Your task to perform on an android device: Open sound settings Image 0: 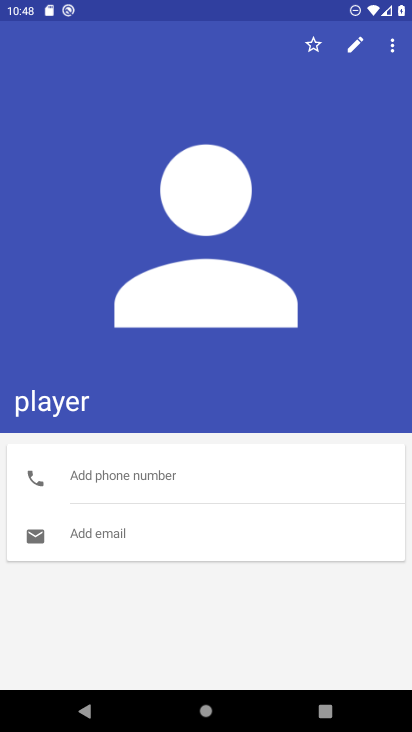
Step 0: press home button
Your task to perform on an android device: Open sound settings Image 1: 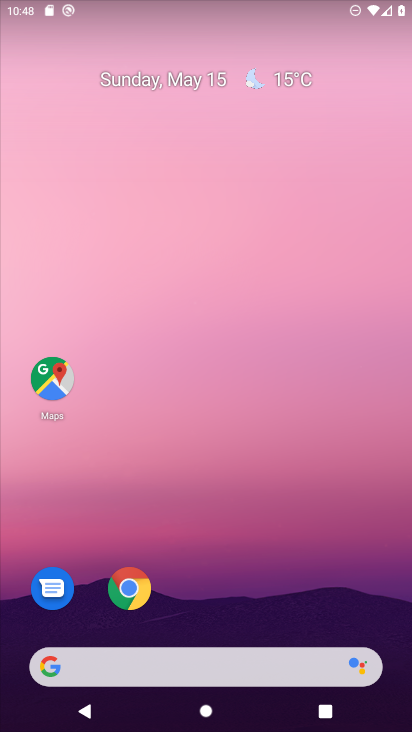
Step 1: drag from (200, 595) to (212, 379)
Your task to perform on an android device: Open sound settings Image 2: 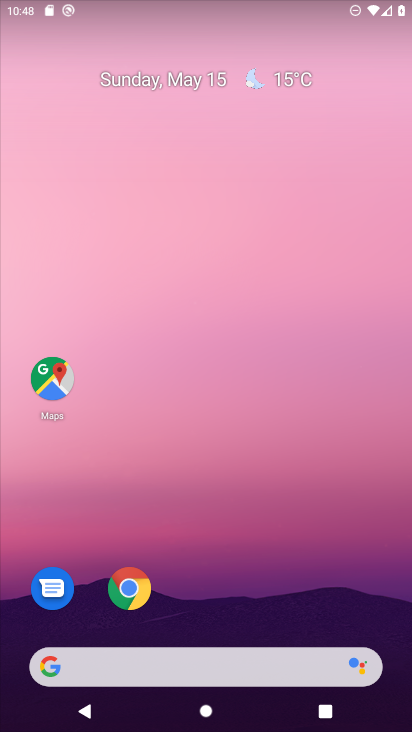
Step 2: drag from (215, 635) to (284, 4)
Your task to perform on an android device: Open sound settings Image 3: 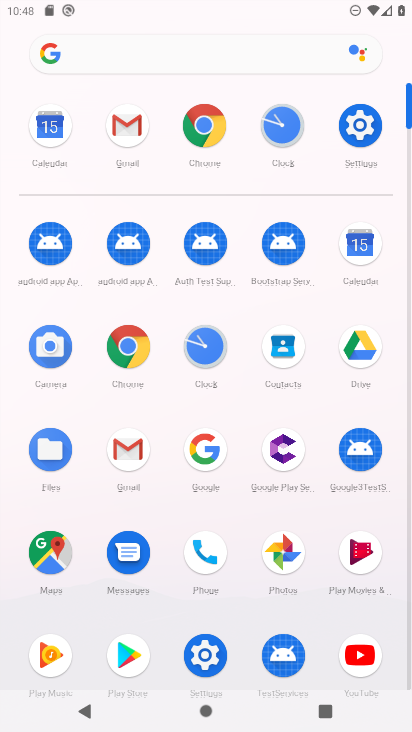
Step 3: click (367, 149)
Your task to perform on an android device: Open sound settings Image 4: 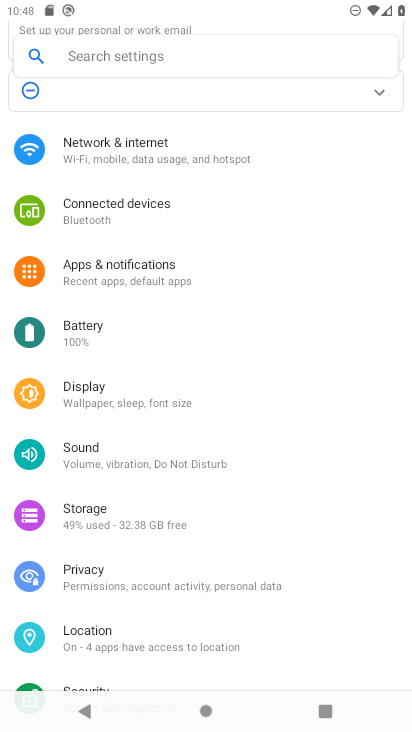
Step 4: click (126, 472)
Your task to perform on an android device: Open sound settings Image 5: 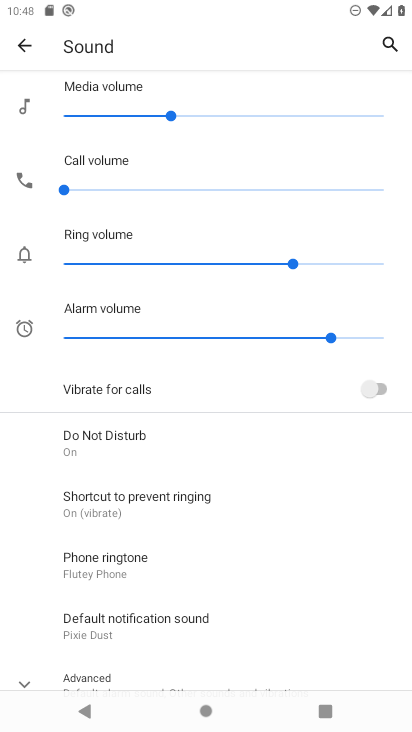
Step 5: task complete